Your task to perform on an android device: Open the calendar and show me this week's events? Image 0: 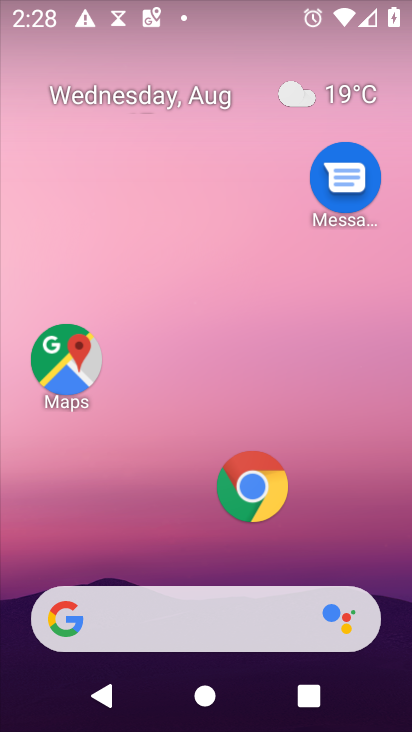
Step 0: drag from (115, 555) to (249, 9)
Your task to perform on an android device: Open the calendar and show me this week's events? Image 1: 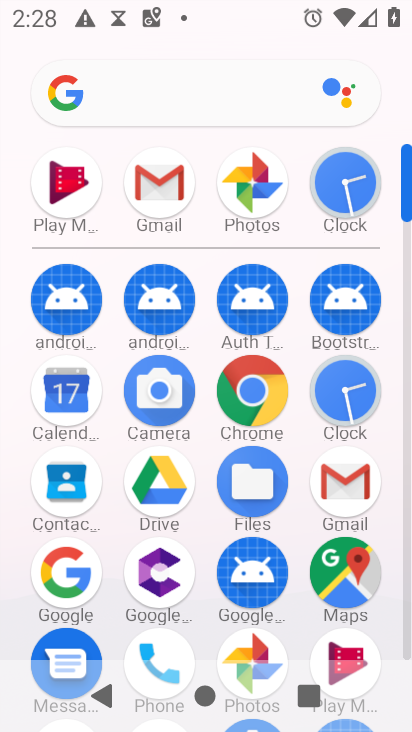
Step 1: click (70, 406)
Your task to perform on an android device: Open the calendar and show me this week's events? Image 2: 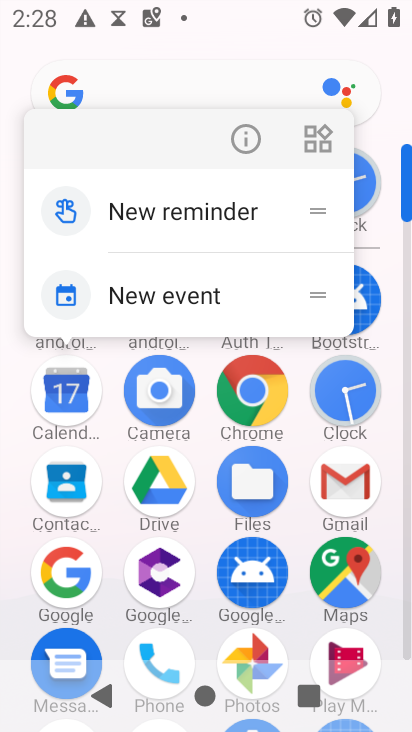
Step 2: click (70, 399)
Your task to perform on an android device: Open the calendar and show me this week's events? Image 3: 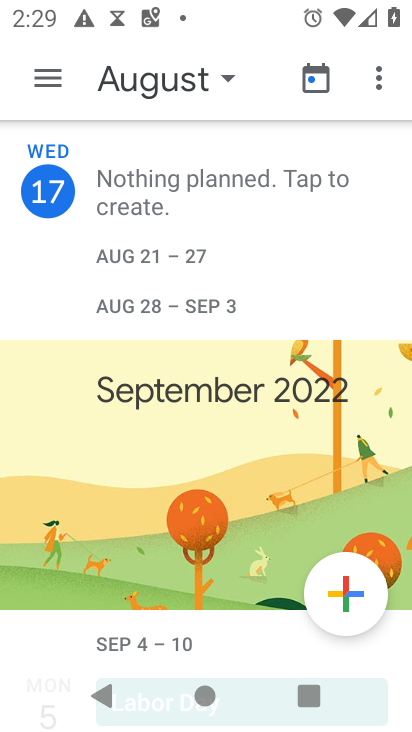
Step 3: task complete